Your task to perform on an android device: open app "Duolingo: language lessons" Image 0: 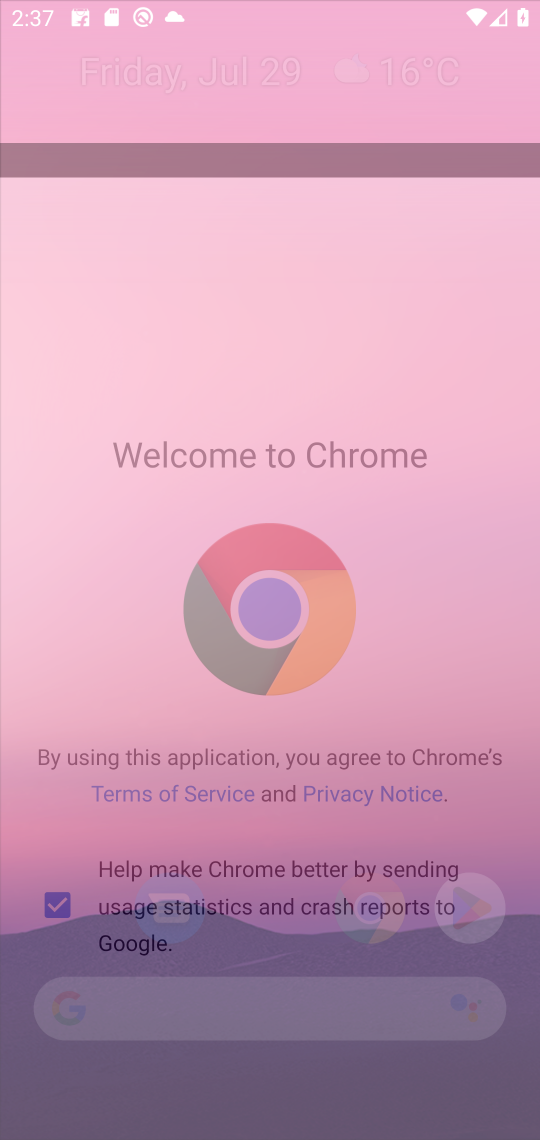
Step 0: press home button
Your task to perform on an android device: open app "Duolingo: language lessons" Image 1: 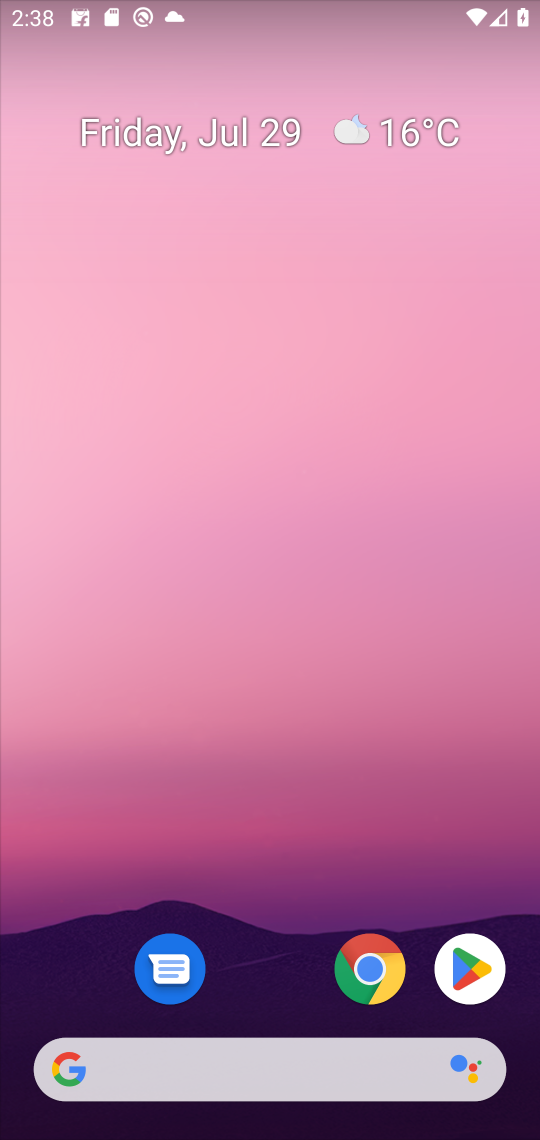
Step 1: click (487, 953)
Your task to perform on an android device: open app "Duolingo: language lessons" Image 2: 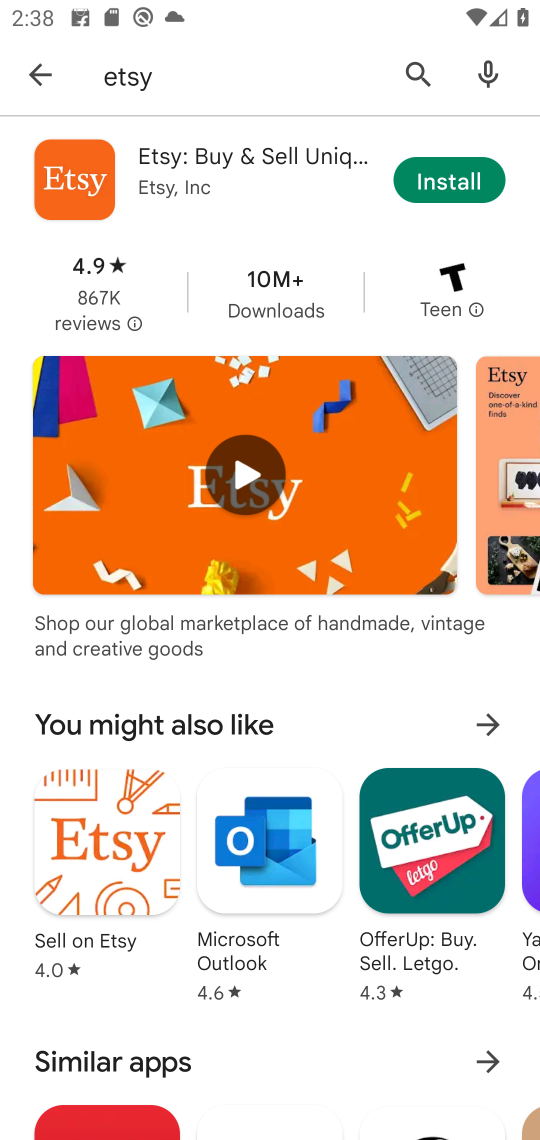
Step 2: click (408, 77)
Your task to perform on an android device: open app "Duolingo: language lessons" Image 3: 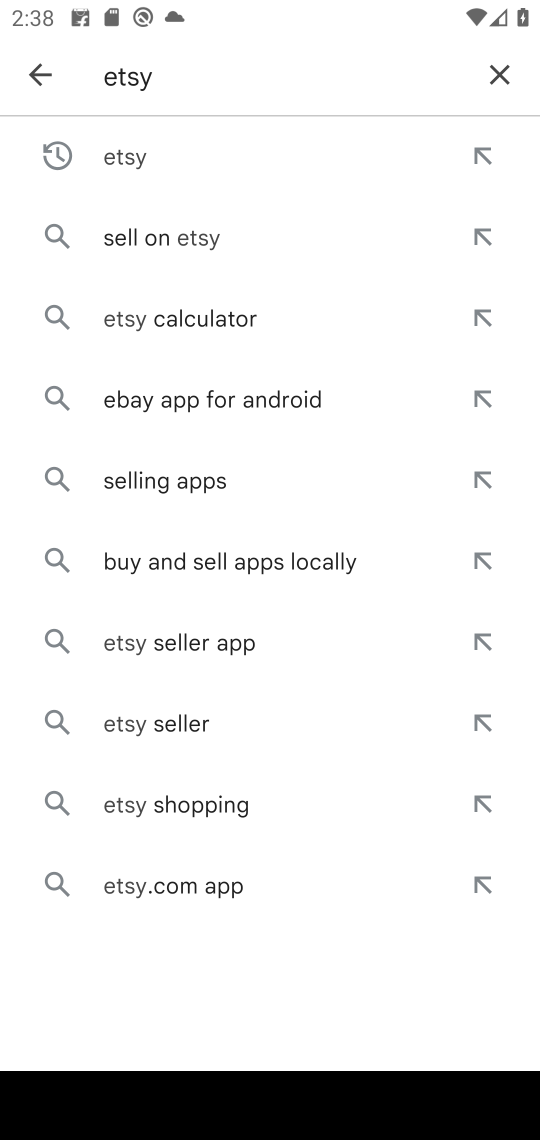
Step 3: click (498, 66)
Your task to perform on an android device: open app "Duolingo: language lessons" Image 4: 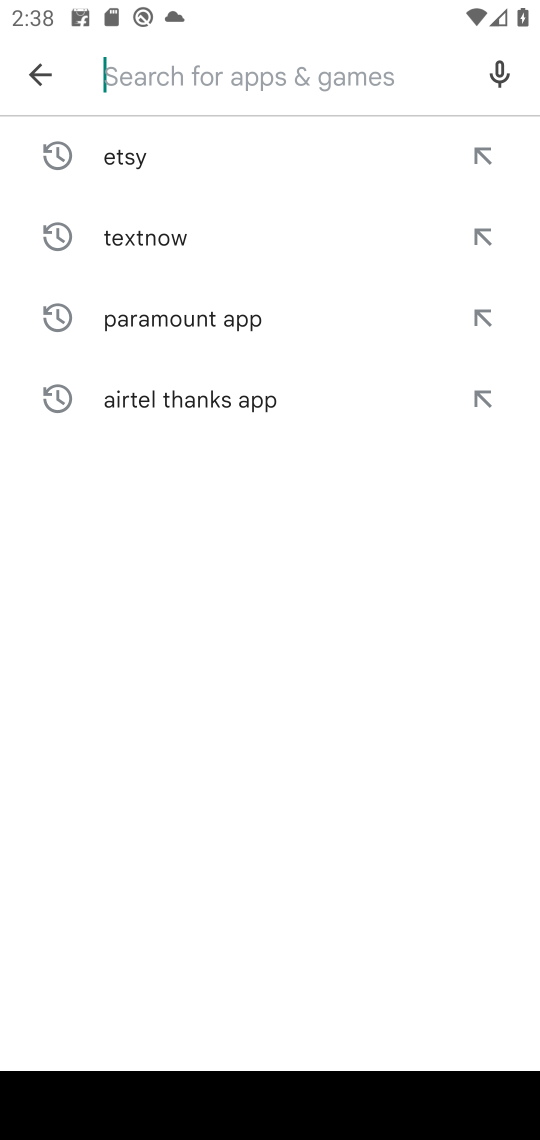
Step 4: type "duolingo"
Your task to perform on an android device: open app "Duolingo: language lessons" Image 5: 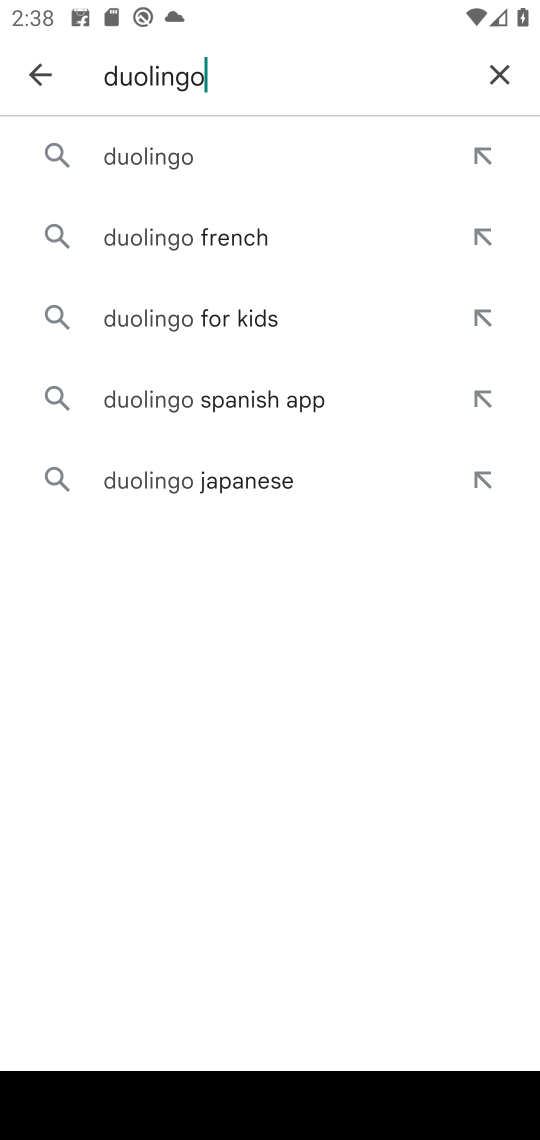
Step 5: click (169, 164)
Your task to perform on an android device: open app "Duolingo: language lessons" Image 6: 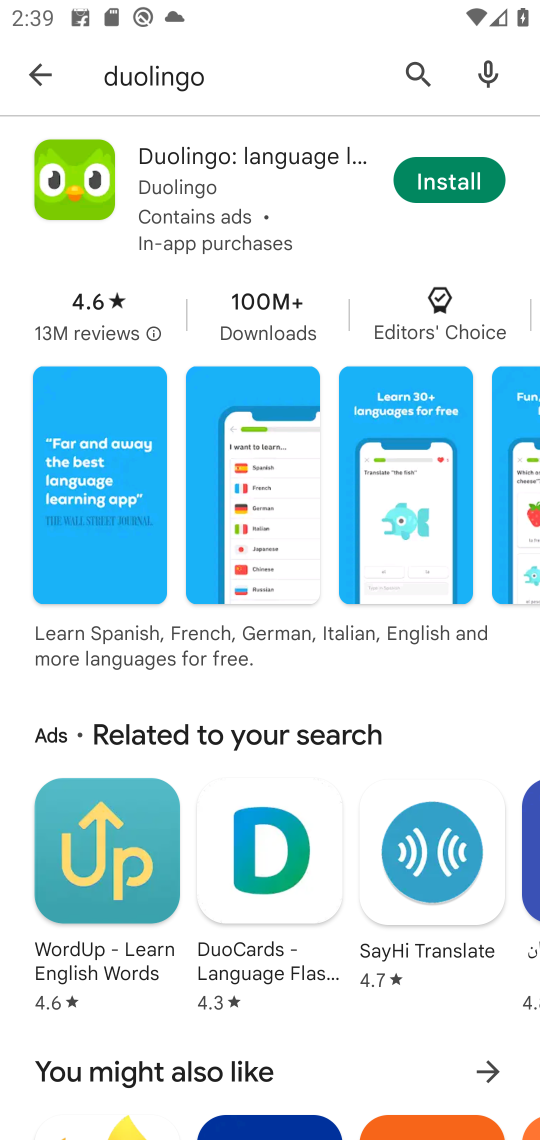
Step 6: task complete